Your task to perform on an android device: Go to sound settings Image 0: 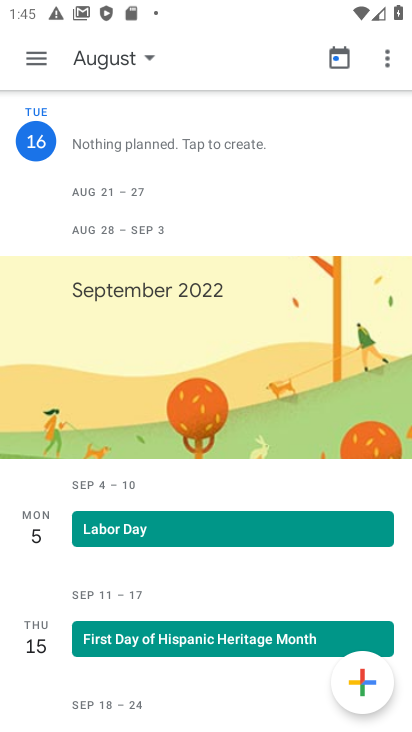
Step 0: press home button
Your task to perform on an android device: Go to sound settings Image 1: 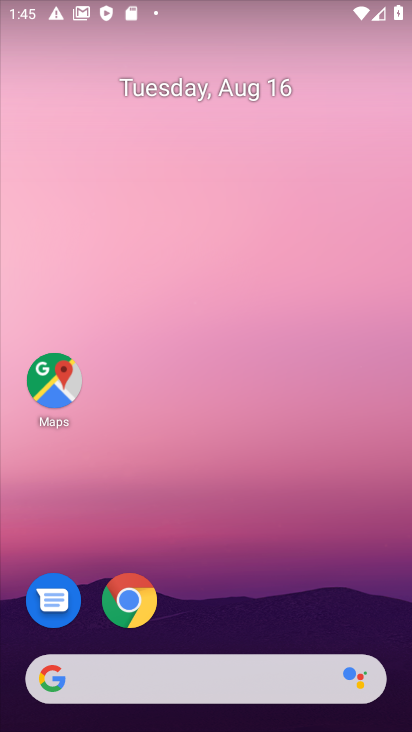
Step 1: drag from (182, 675) to (332, 2)
Your task to perform on an android device: Go to sound settings Image 2: 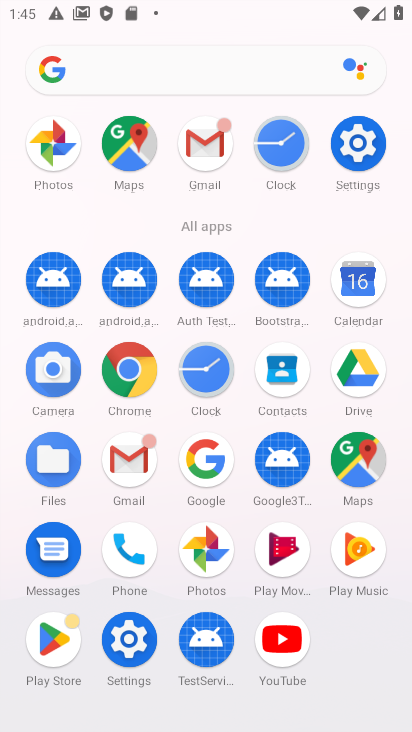
Step 2: click (133, 624)
Your task to perform on an android device: Go to sound settings Image 3: 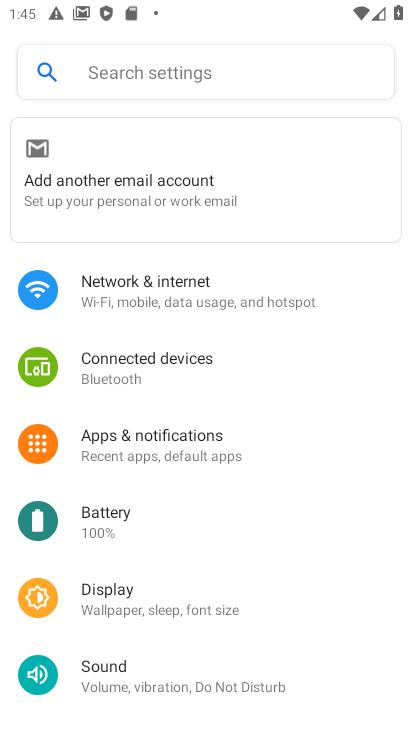
Step 3: click (122, 685)
Your task to perform on an android device: Go to sound settings Image 4: 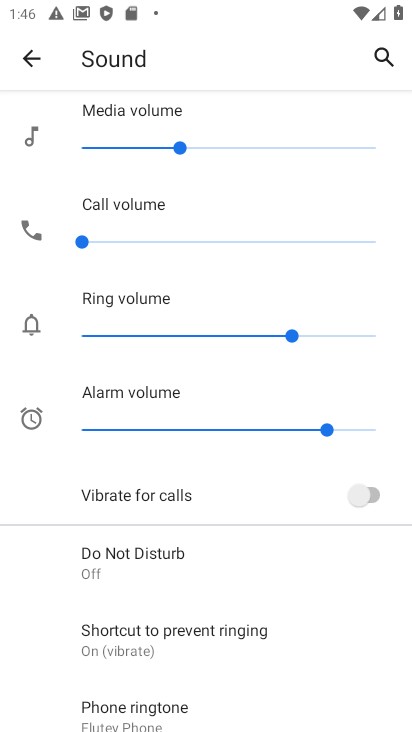
Step 4: task complete